Your task to perform on an android device: Go to settings Image 0: 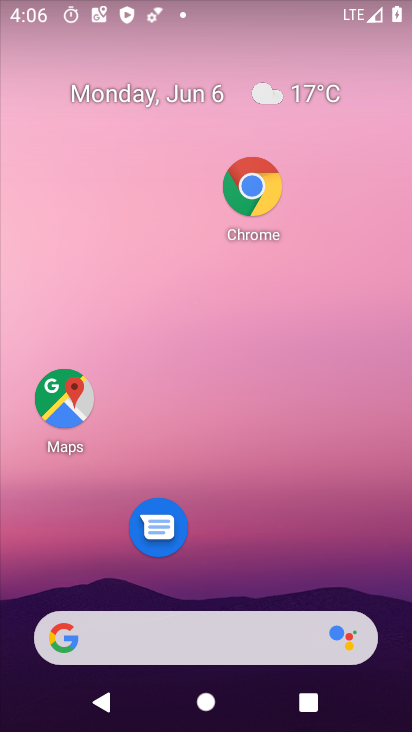
Step 0: drag from (241, 617) to (240, 285)
Your task to perform on an android device: Go to settings Image 1: 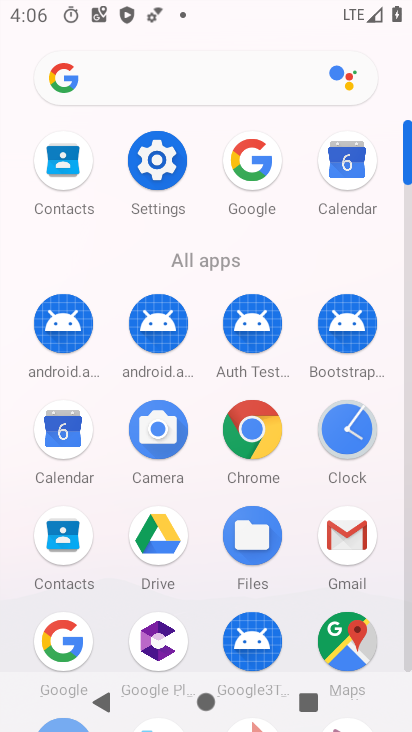
Step 1: click (181, 184)
Your task to perform on an android device: Go to settings Image 2: 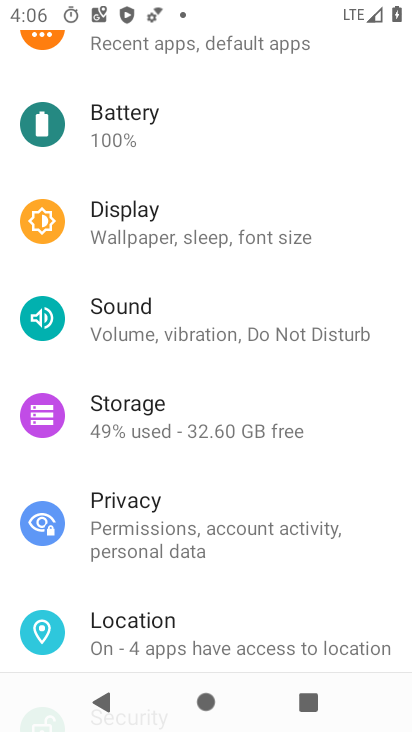
Step 2: task complete